Your task to perform on an android device: Open Android settings Image 0: 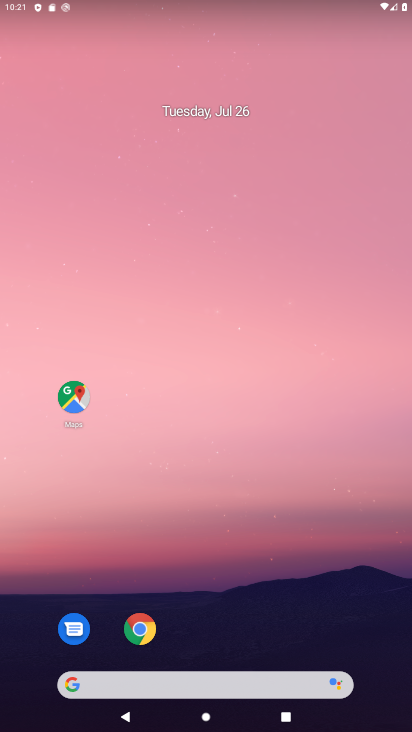
Step 0: drag from (265, 664) to (219, 318)
Your task to perform on an android device: Open Android settings Image 1: 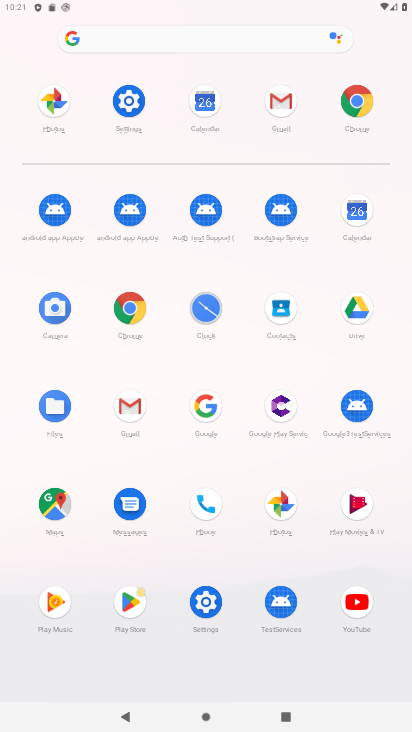
Step 1: click (133, 131)
Your task to perform on an android device: Open Android settings Image 2: 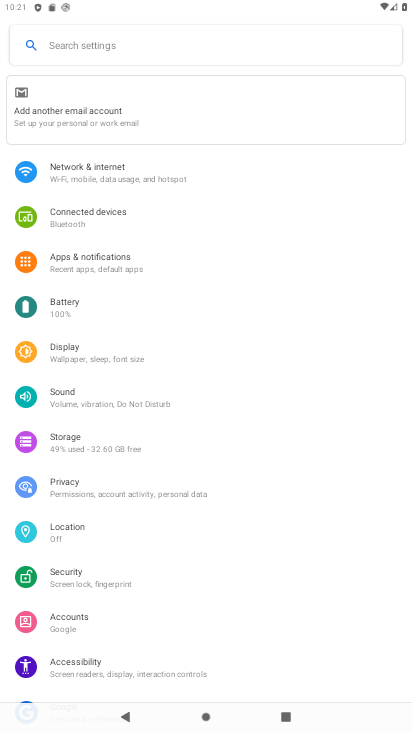
Step 2: task complete